Your task to perform on an android device: Open Google Chrome and open the bookmarks view Image 0: 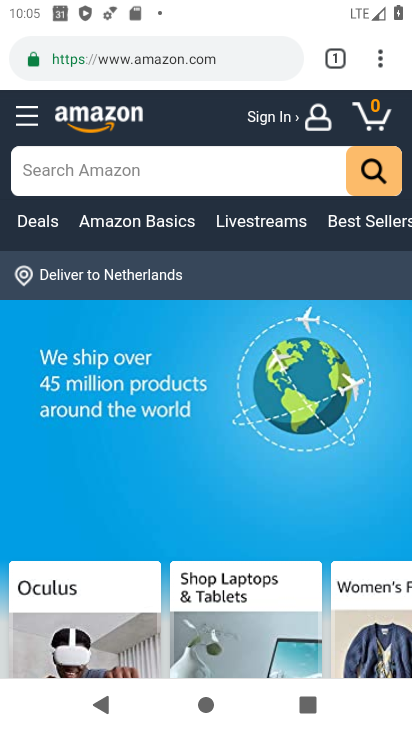
Step 0: click (383, 63)
Your task to perform on an android device: Open Google Chrome and open the bookmarks view Image 1: 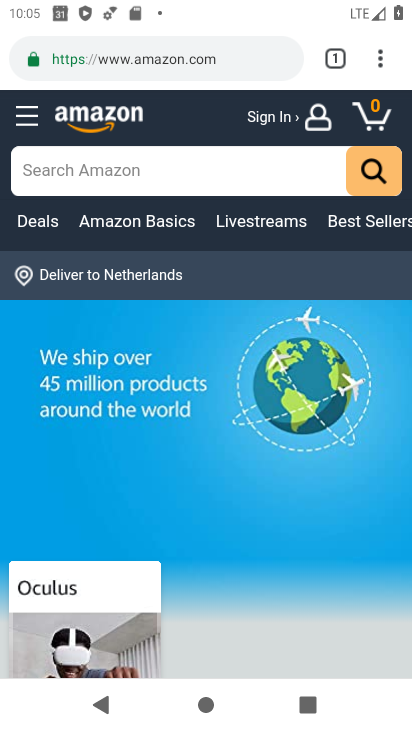
Step 1: drag from (383, 63) to (188, 278)
Your task to perform on an android device: Open Google Chrome and open the bookmarks view Image 2: 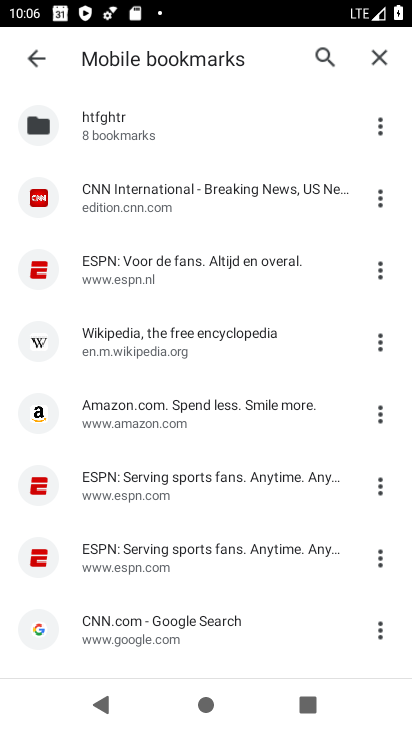
Step 2: click (168, 260)
Your task to perform on an android device: Open Google Chrome and open the bookmarks view Image 3: 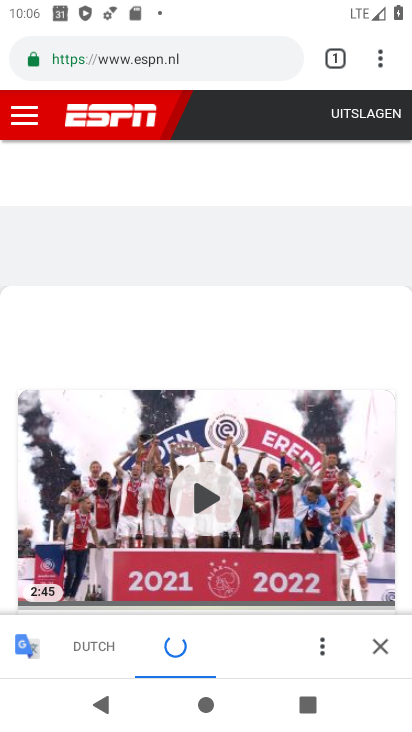
Step 3: task complete